Your task to perform on an android device: open a bookmark in the chrome app Image 0: 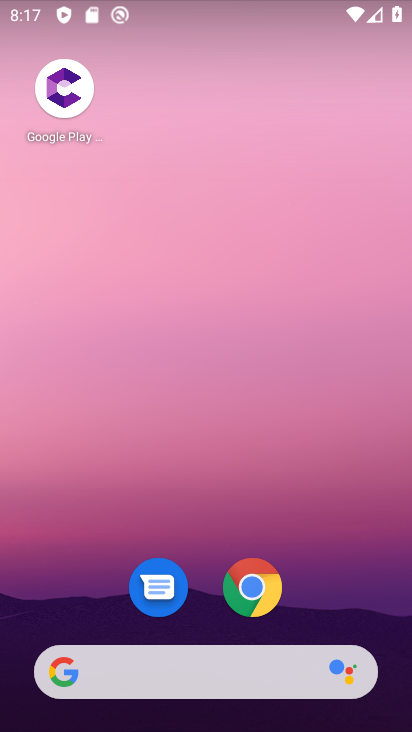
Step 0: click (247, 593)
Your task to perform on an android device: open a bookmark in the chrome app Image 1: 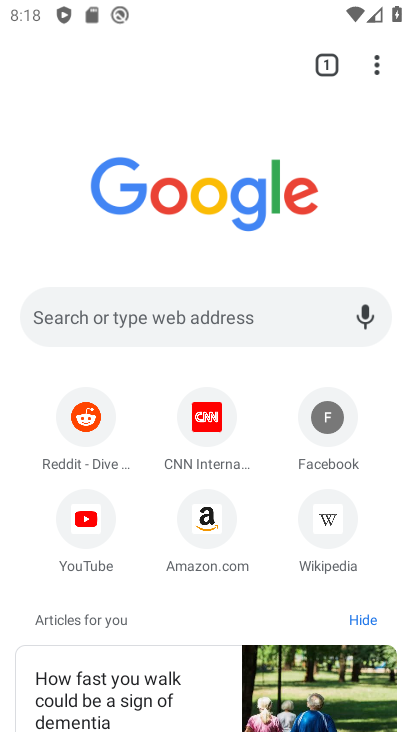
Step 1: click (384, 57)
Your task to perform on an android device: open a bookmark in the chrome app Image 2: 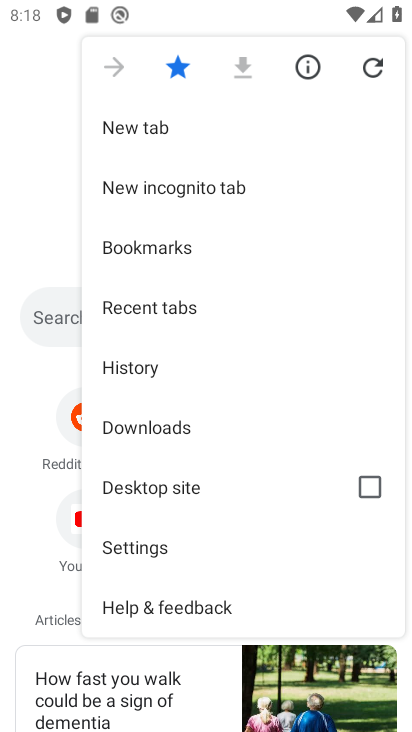
Step 2: click (159, 556)
Your task to perform on an android device: open a bookmark in the chrome app Image 3: 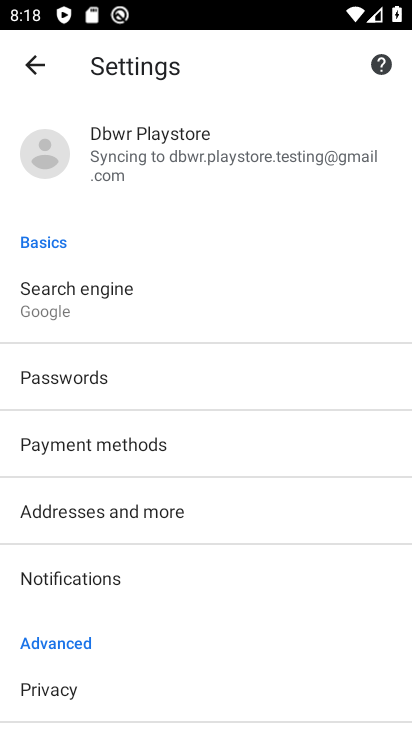
Step 3: drag from (103, 657) to (217, 127)
Your task to perform on an android device: open a bookmark in the chrome app Image 4: 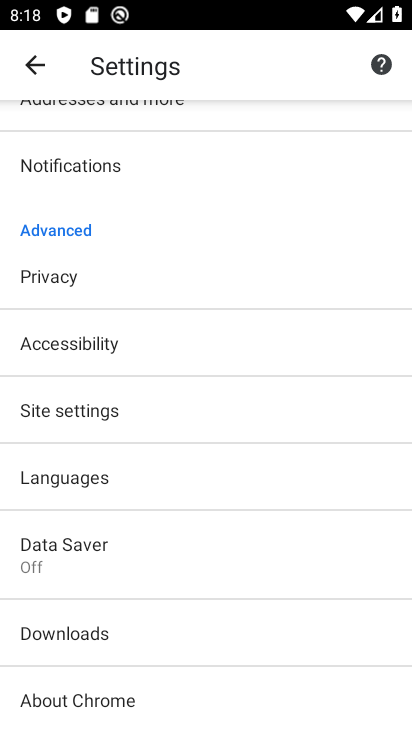
Step 4: drag from (243, 194) to (210, 515)
Your task to perform on an android device: open a bookmark in the chrome app Image 5: 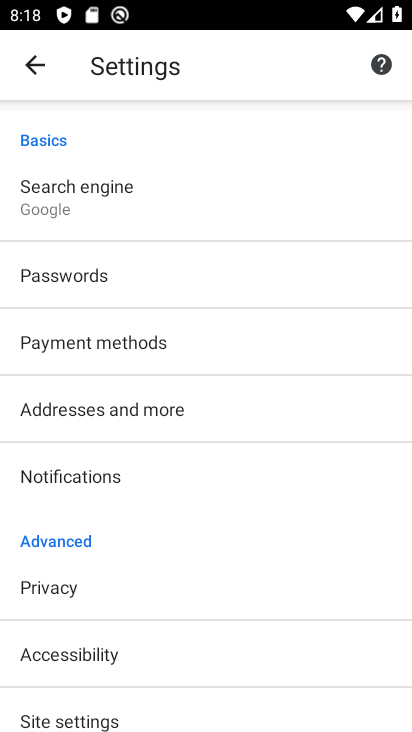
Step 5: click (29, 76)
Your task to perform on an android device: open a bookmark in the chrome app Image 6: 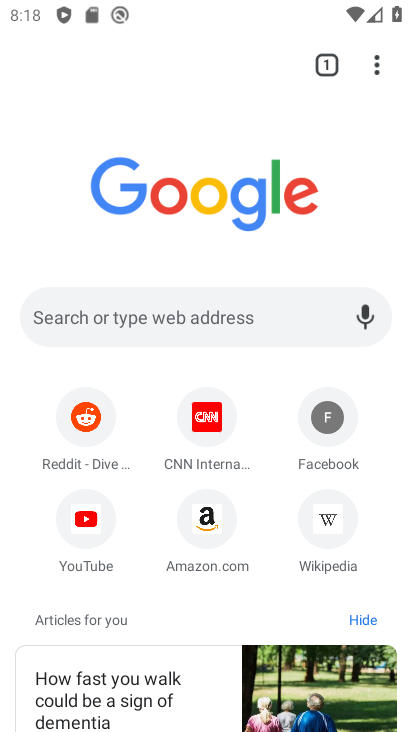
Step 6: click (376, 65)
Your task to perform on an android device: open a bookmark in the chrome app Image 7: 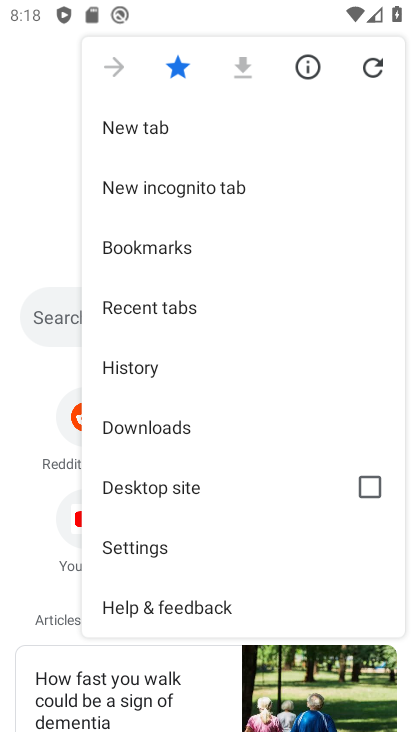
Step 7: click (159, 248)
Your task to perform on an android device: open a bookmark in the chrome app Image 8: 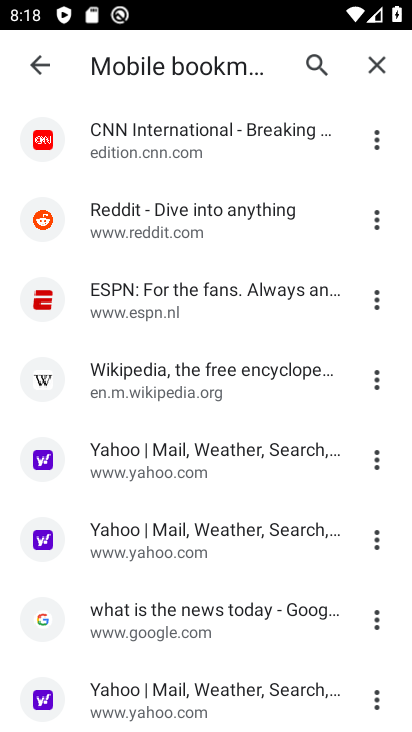
Step 8: click (208, 594)
Your task to perform on an android device: open a bookmark in the chrome app Image 9: 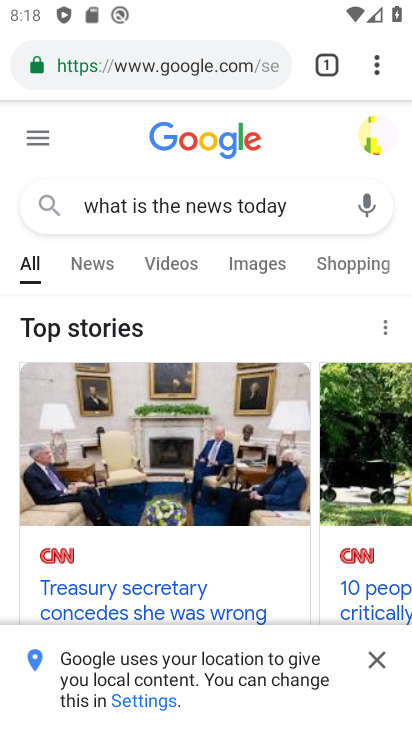
Step 9: task complete